Your task to perform on an android device: toggle notifications settings in the gmail app Image 0: 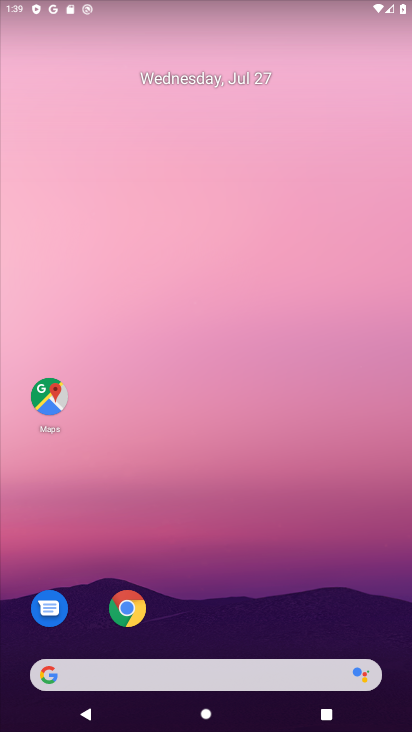
Step 0: drag from (41, 710) to (257, 59)
Your task to perform on an android device: toggle notifications settings in the gmail app Image 1: 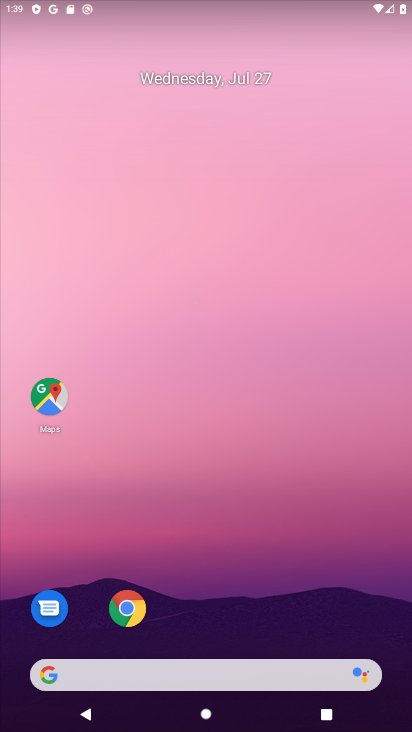
Step 1: drag from (50, 693) to (225, 21)
Your task to perform on an android device: toggle notifications settings in the gmail app Image 2: 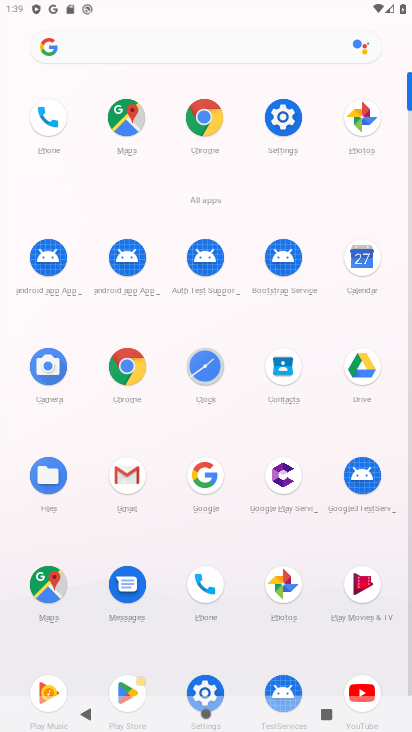
Step 2: click (200, 684)
Your task to perform on an android device: toggle notifications settings in the gmail app Image 3: 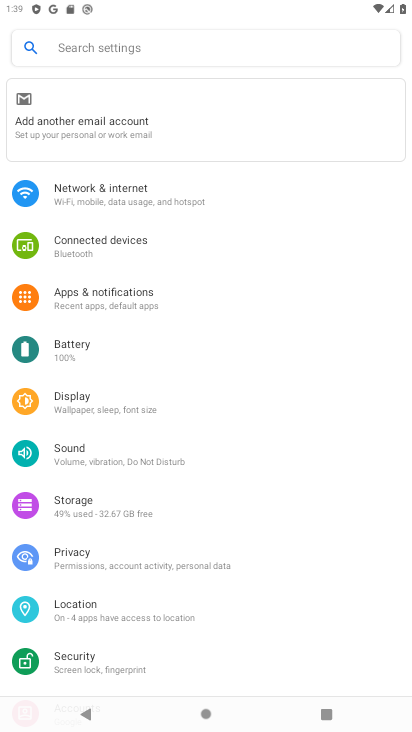
Step 3: click (100, 300)
Your task to perform on an android device: toggle notifications settings in the gmail app Image 4: 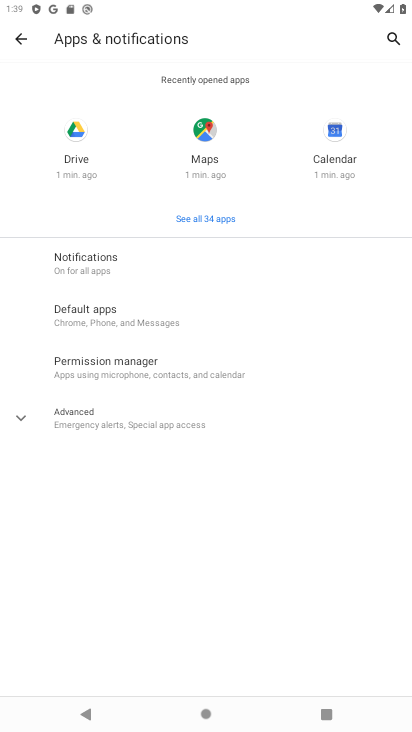
Step 4: task complete